Your task to perform on an android device: turn off improve location accuracy Image 0: 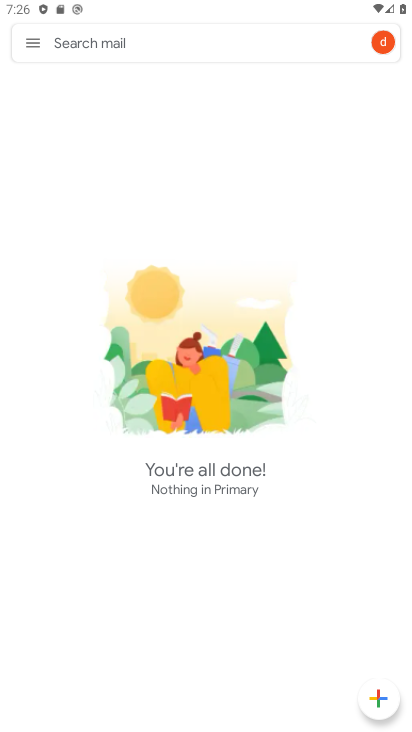
Step 0: press home button
Your task to perform on an android device: turn off improve location accuracy Image 1: 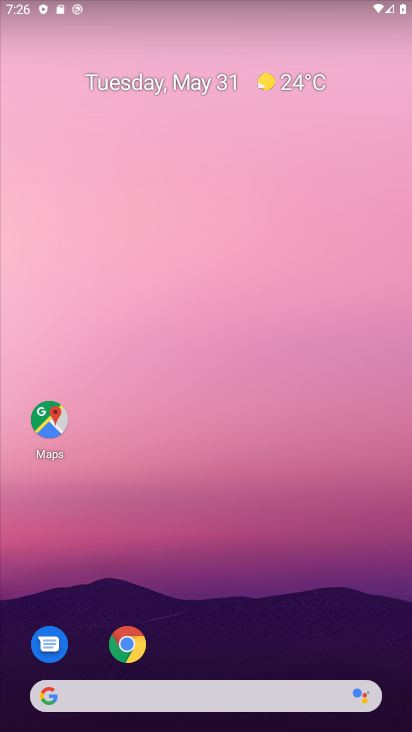
Step 1: drag from (256, 624) to (281, 237)
Your task to perform on an android device: turn off improve location accuracy Image 2: 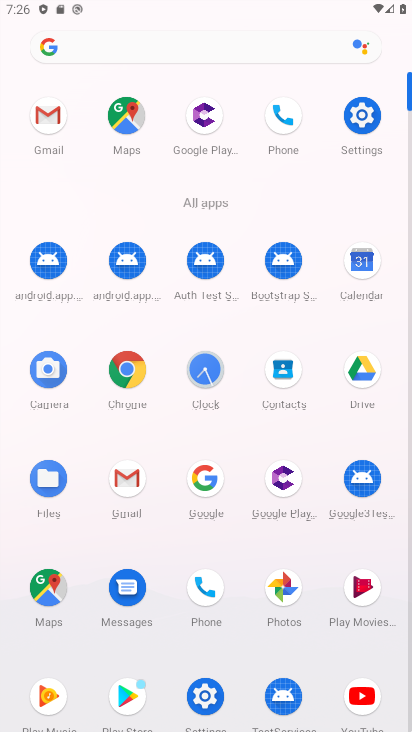
Step 2: click (370, 140)
Your task to perform on an android device: turn off improve location accuracy Image 3: 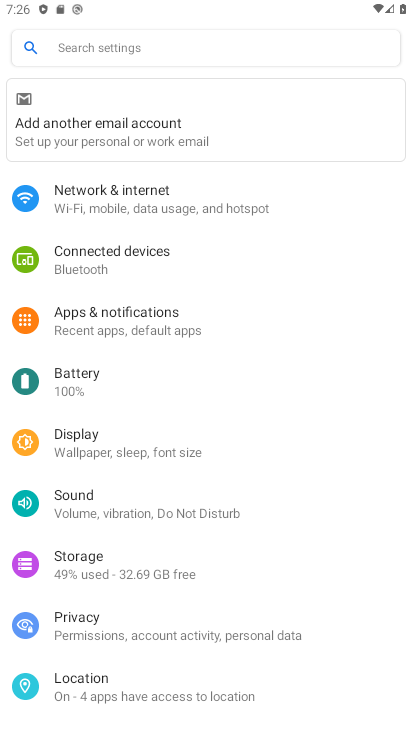
Step 3: click (160, 684)
Your task to perform on an android device: turn off improve location accuracy Image 4: 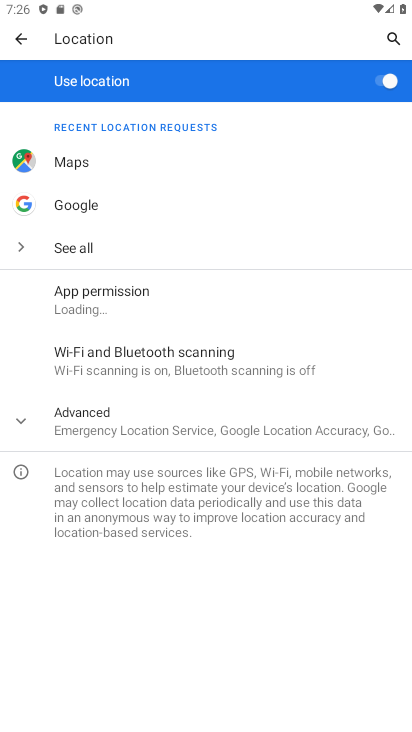
Step 4: click (162, 427)
Your task to perform on an android device: turn off improve location accuracy Image 5: 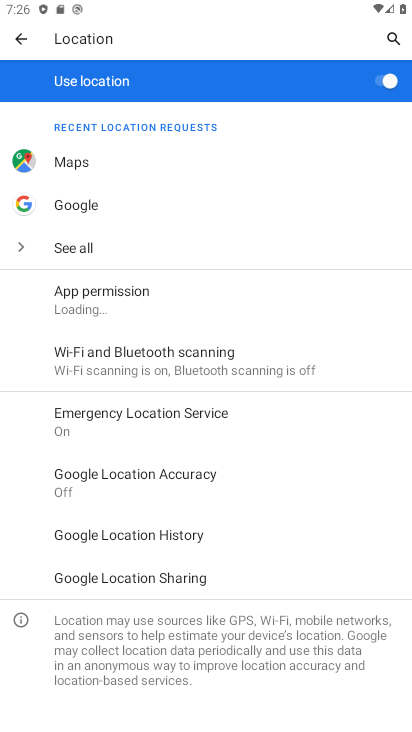
Step 5: task complete